Your task to perform on an android device: turn on bluetooth scan Image 0: 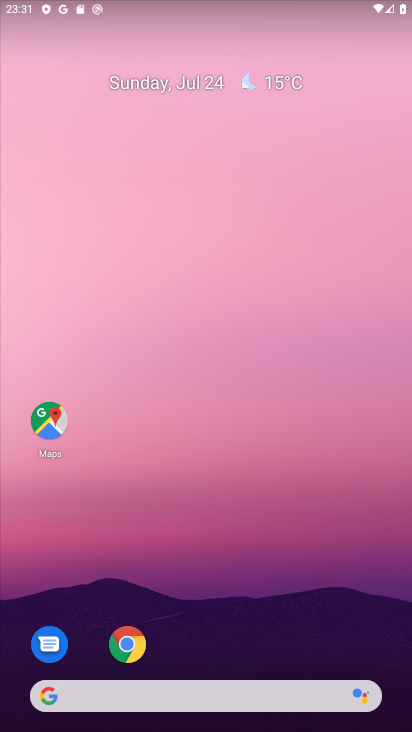
Step 0: drag from (223, 726) to (222, 215)
Your task to perform on an android device: turn on bluetooth scan Image 1: 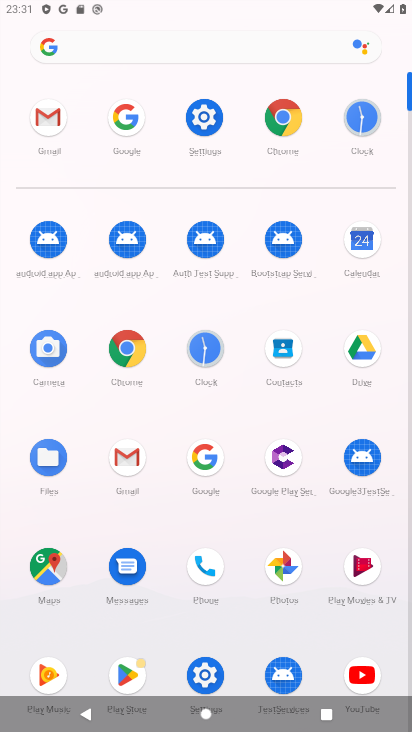
Step 1: click (207, 112)
Your task to perform on an android device: turn on bluetooth scan Image 2: 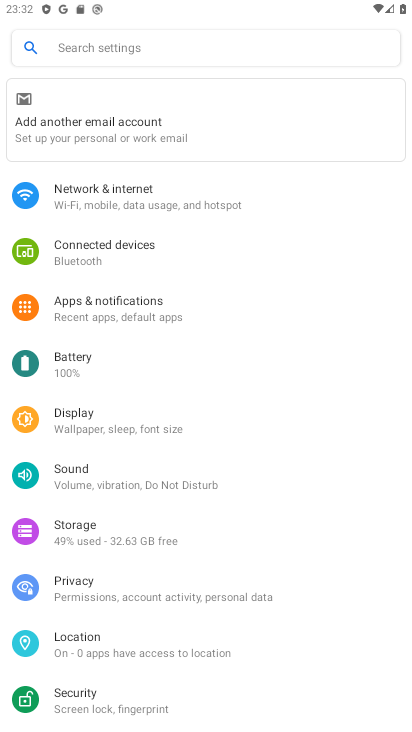
Step 2: click (74, 641)
Your task to perform on an android device: turn on bluetooth scan Image 3: 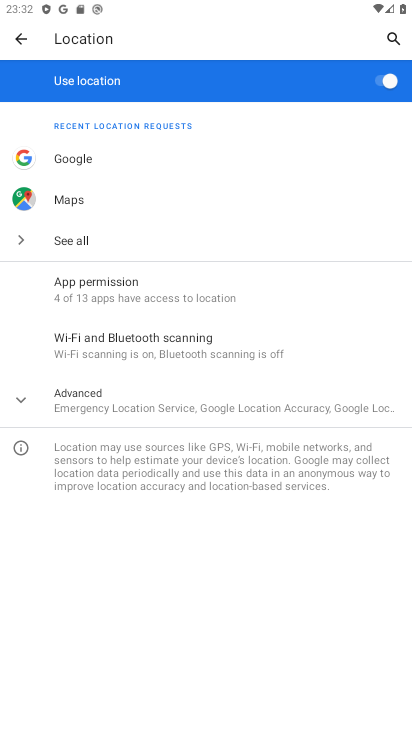
Step 3: click (162, 350)
Your task to perform on an android device: turn on bluetooth scan Image 4: 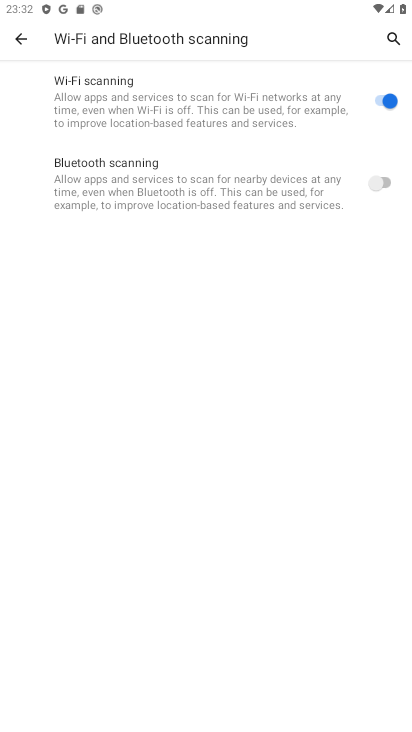
Step 4: click (387, 187)
Your task to perform on an android device: turn on bluetooth scan Image 5: 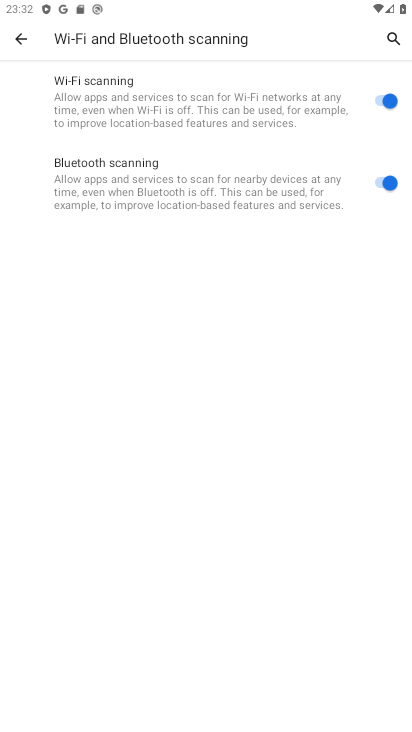
Step 5: task complete